Your task to perform on an android device: Check the settings for the Google Play Movies app Image 0: 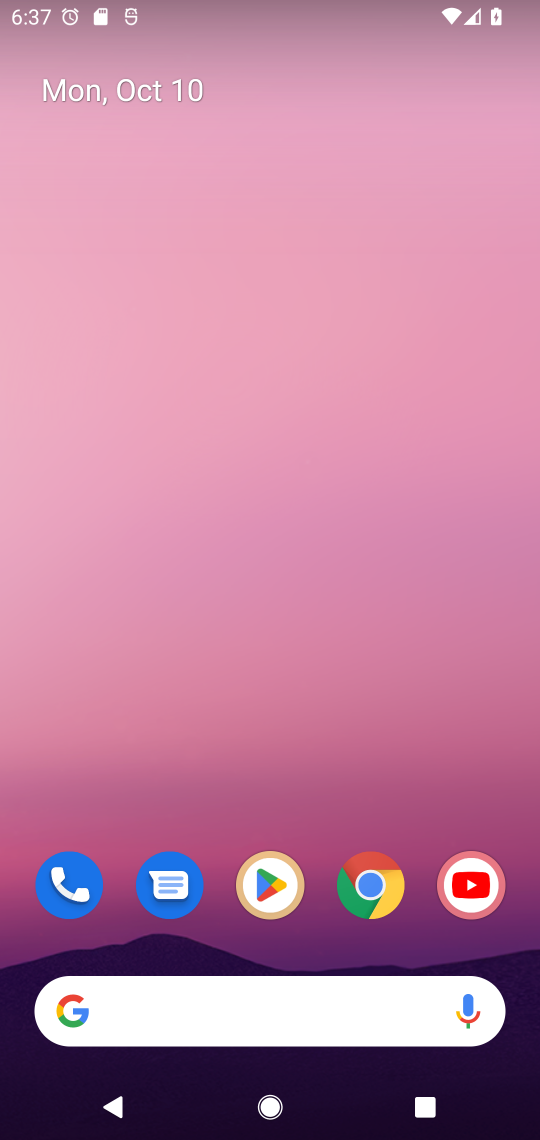
Step 0: click (276, 910)
Your task to perform on an android device: Check the settings for the Google Play Movies app Image 1: 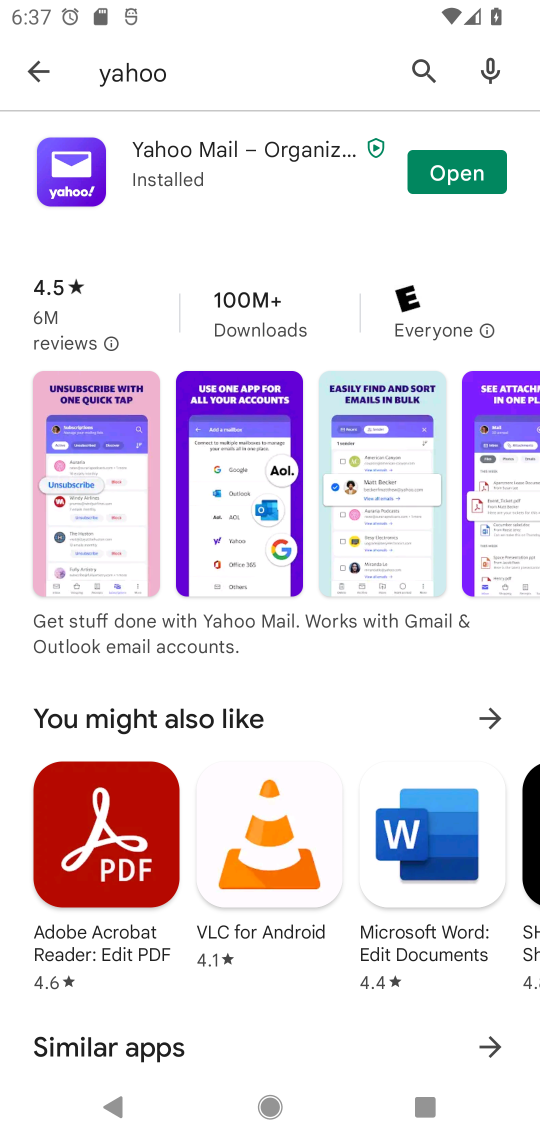
Step 1: click (422, 67)
Your task to perform on an android device: Check the settings for the Google Play Movies app Image 2: 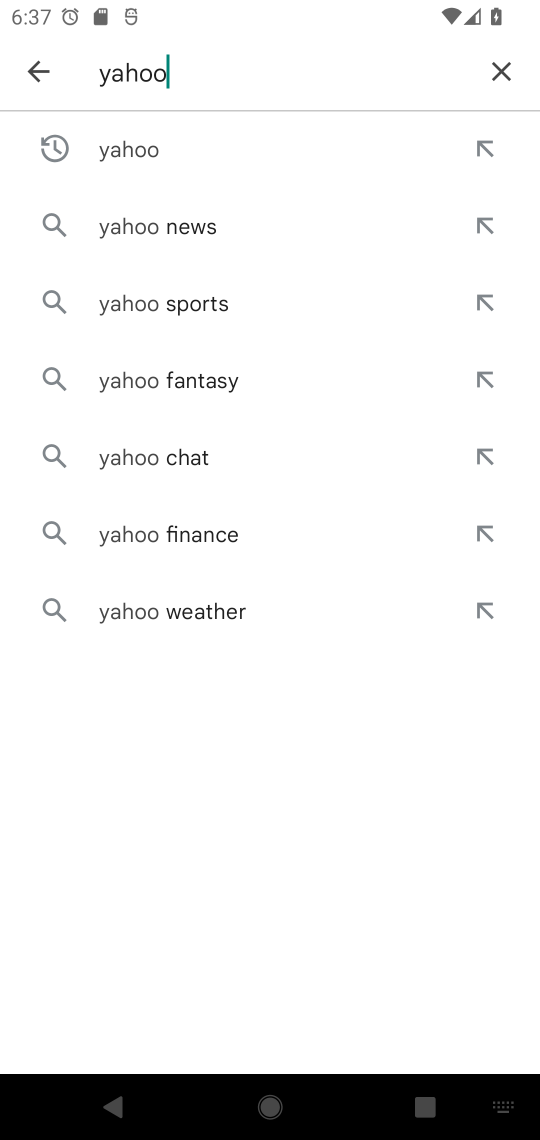
Step 2: click (501, 70)
Your task to perform on an android device: Check the settings for the Google Play Movies app Image 3: 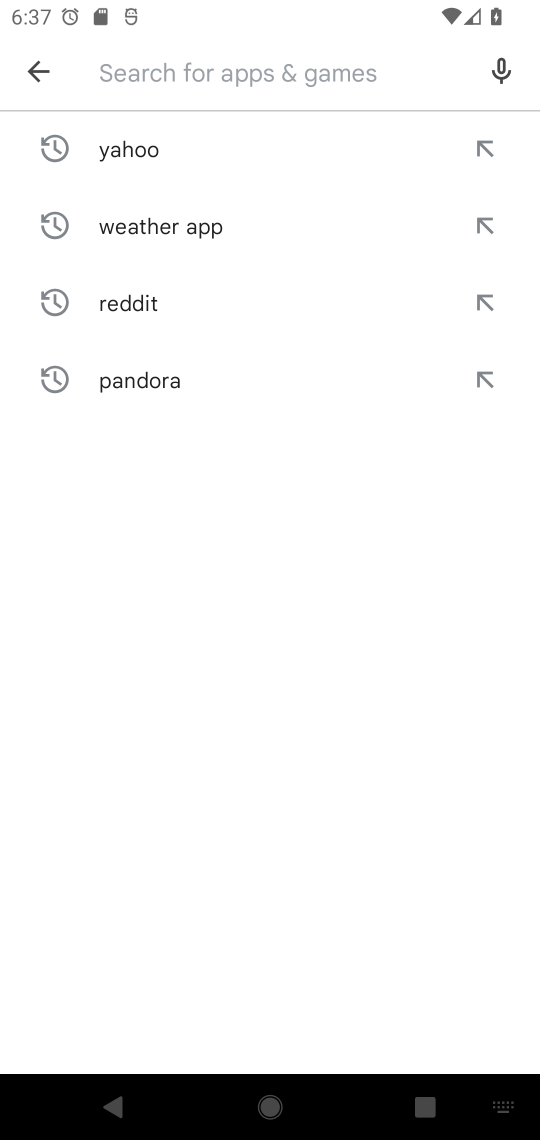
Step 3: type "google play movies"
Your task to perform on an android device: Check the settings for the Google Play Movies app Image 4: 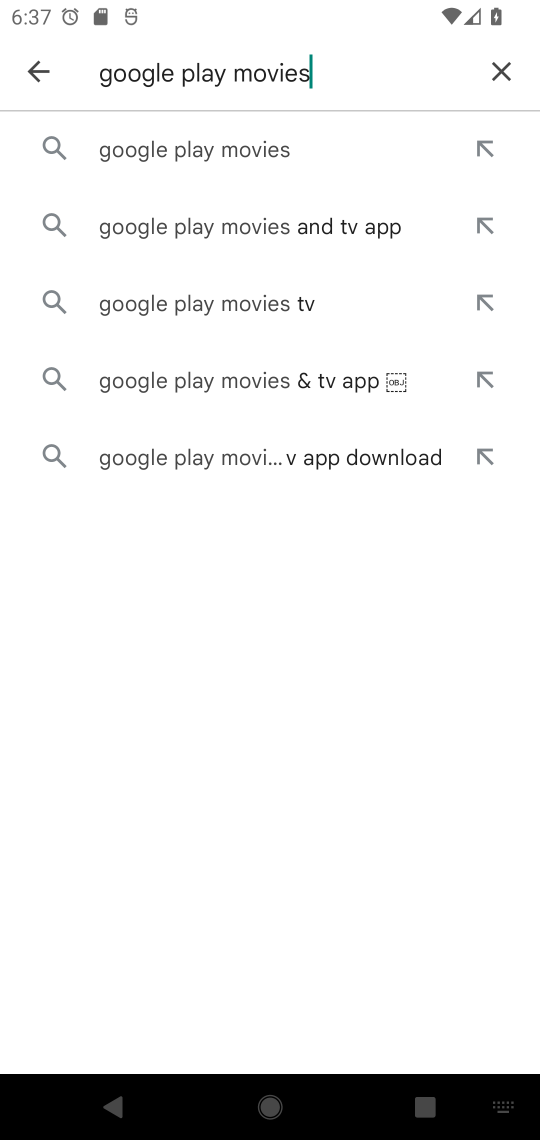
Step 4: click (233, 153)
Your task to perform on an android device: Check the settings for the Google Play Movies app Image 5: 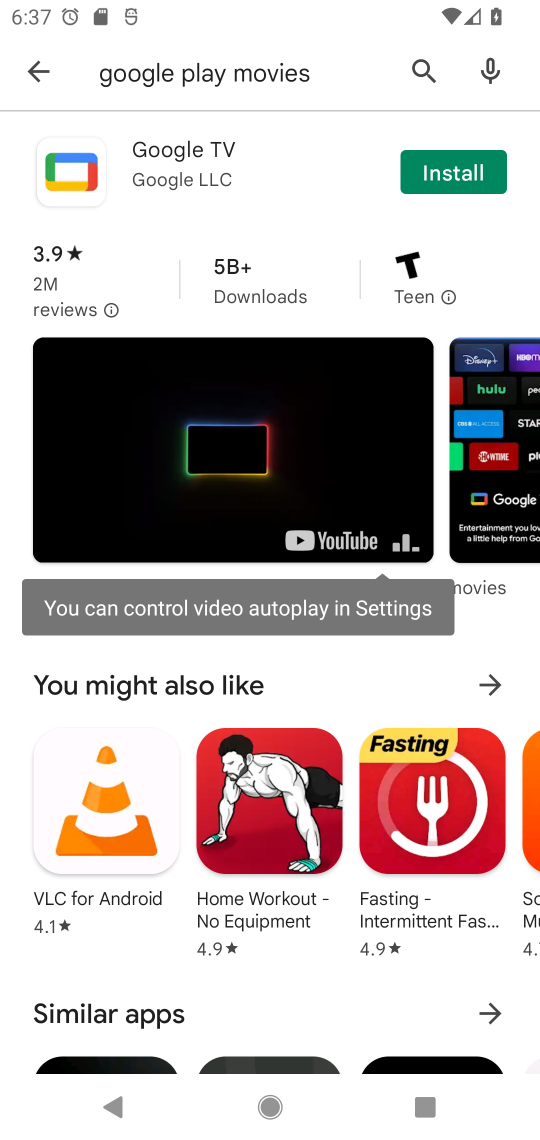
Step 5: click (446, 173)
Your task to perform on an android device: Check the settings for the Google Play Movies app Image 6: 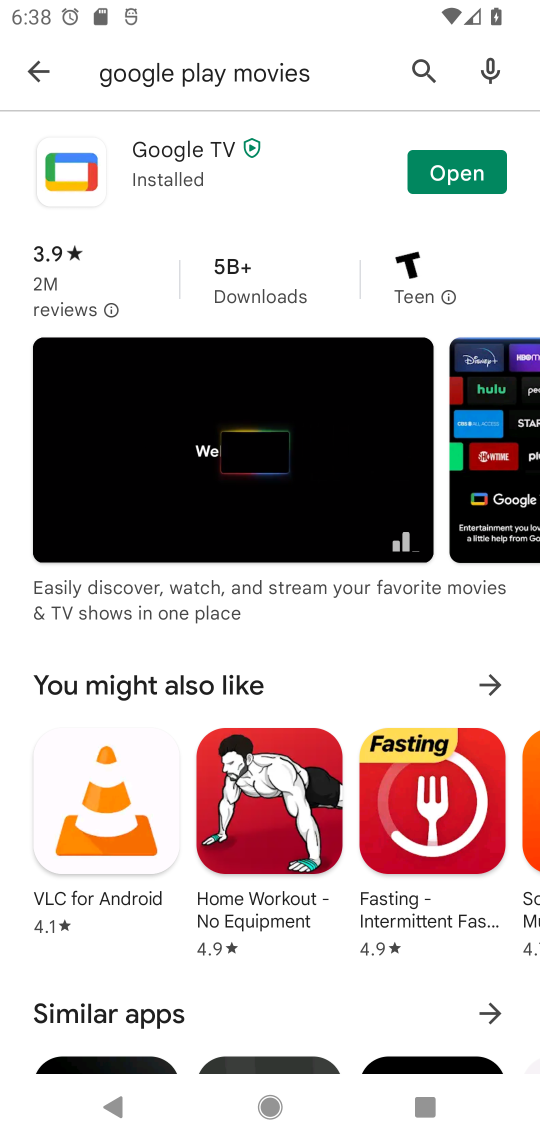
Step 6: click (446, 173)
Your task to perform on an android device: Check the settings for the Google Play Movies app Image 7: 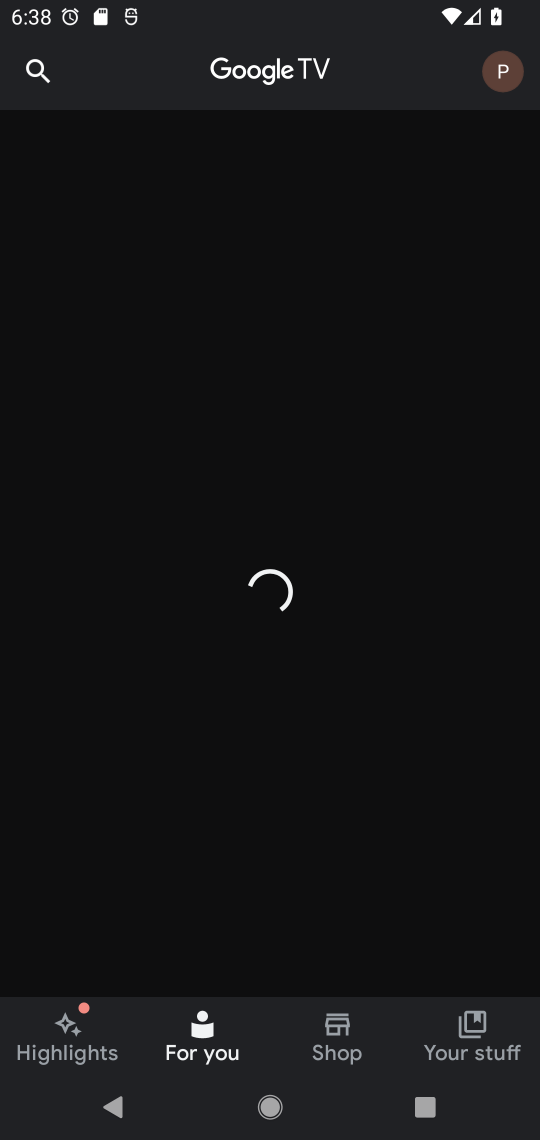
Step 7: click (508, 79)
Your task to perform on an android device: Check the settings for the Google Play Movies app Image 8: 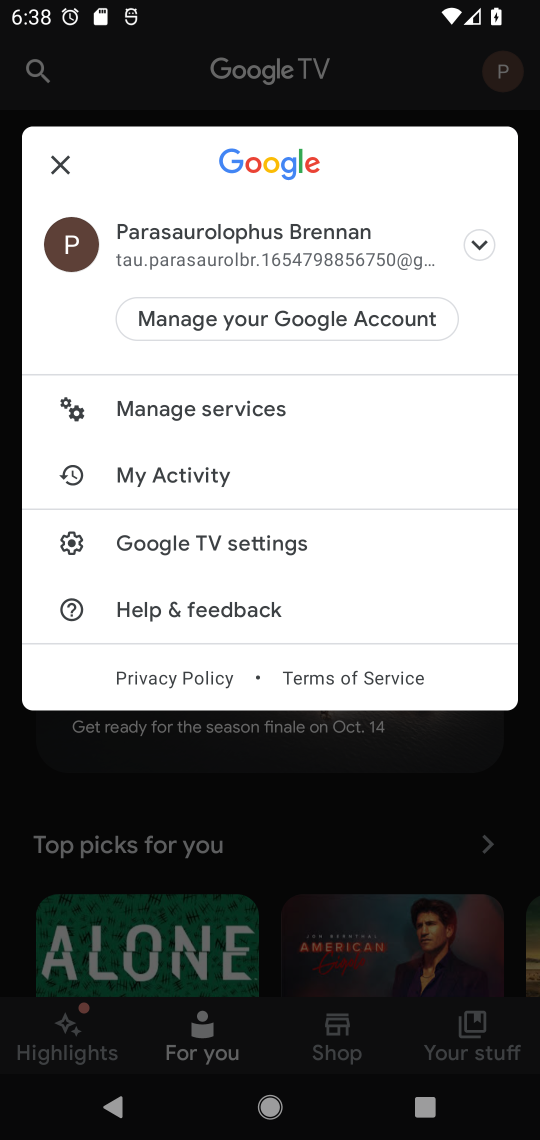
Step 8: click (194, 546)
Your task to perform on an android device: Check the settings for the Google Play Movies app Image 9: 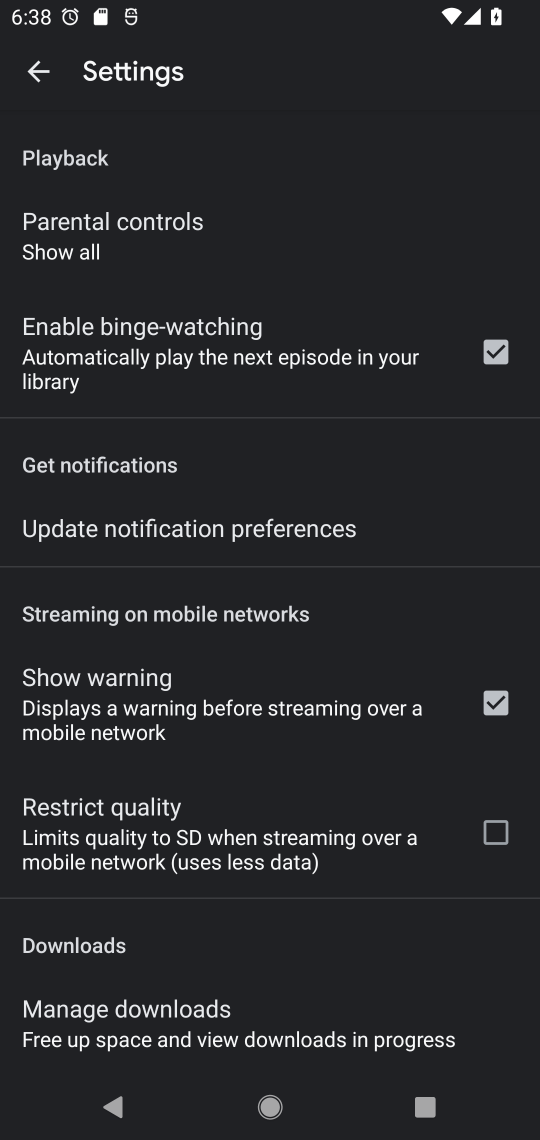
Step 9: task complete